Your task to perform on an android device: toggle javascript in the chrome app Image 0: 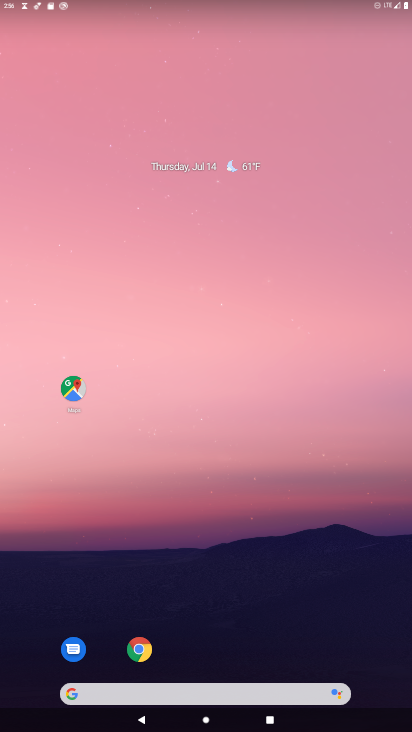
Step 0: drag from (208, 634) to (251, 71)
Your task to perform on an android device: toggle javascript in the chrome app Image 1: 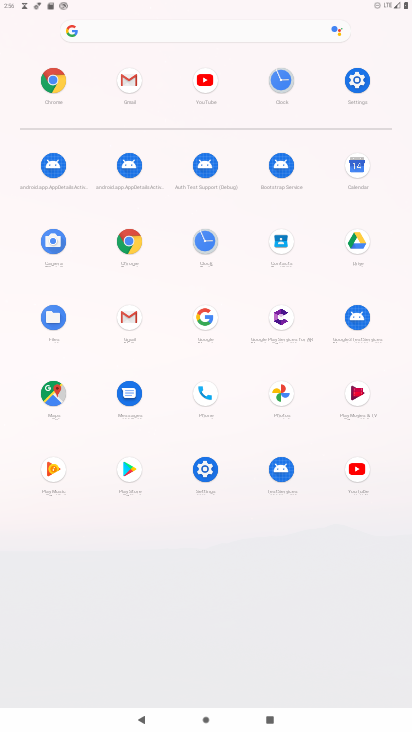
Step 1: click (137, 242)
Your task to perform on an android device: toggle javascript in the chrome app Image 2: 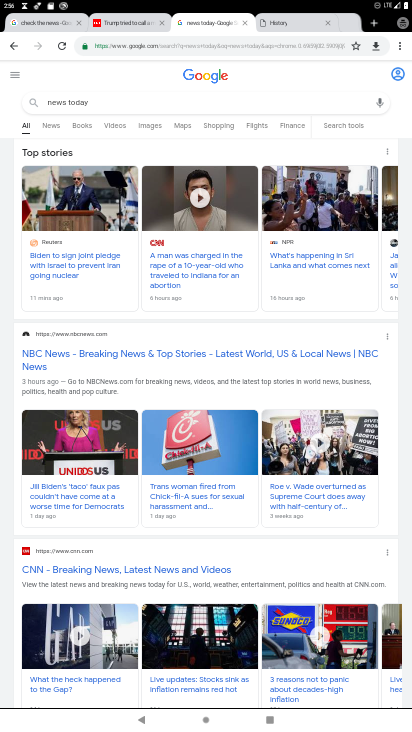
Step 2: click (403, 41)
Your task to perform on an android device: toggle javascript in the chrome app Image 3: 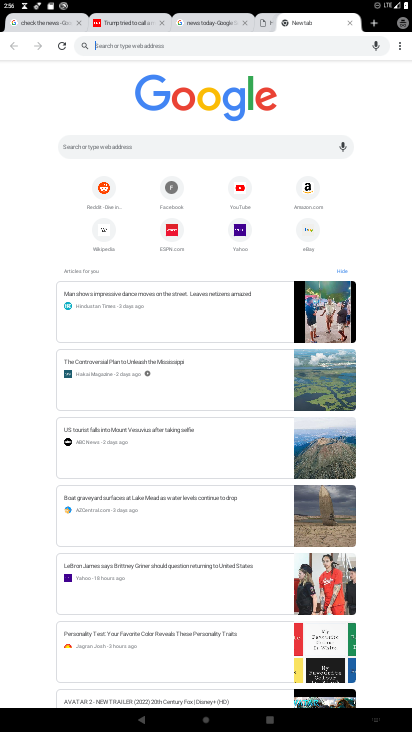
Step 3: drag from (397, 43) to (329, 214)
Your task to perform on an android device: toggle javascript in the chrome app Image 4: 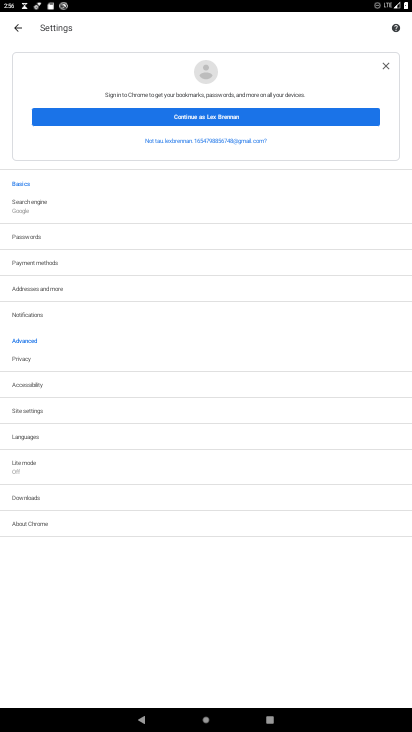
Step 4: click (40, 409)
Your task to perform on an android device: toggle javascript in the chrome app Image 5: 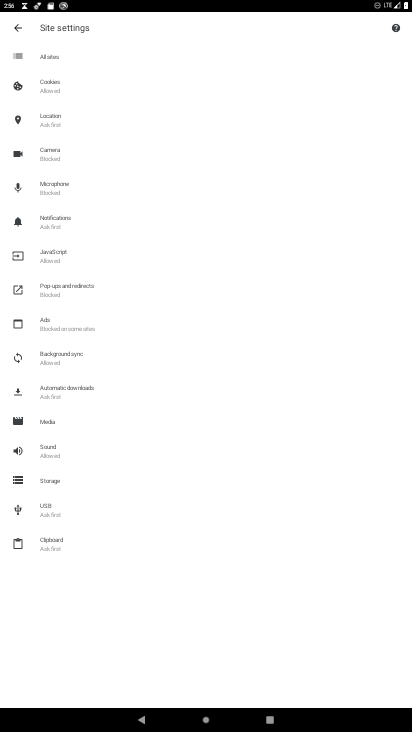
Step 5: click (70, 256)
Your task to perform on an android device: toggle javascript in the chrome app Image 6: 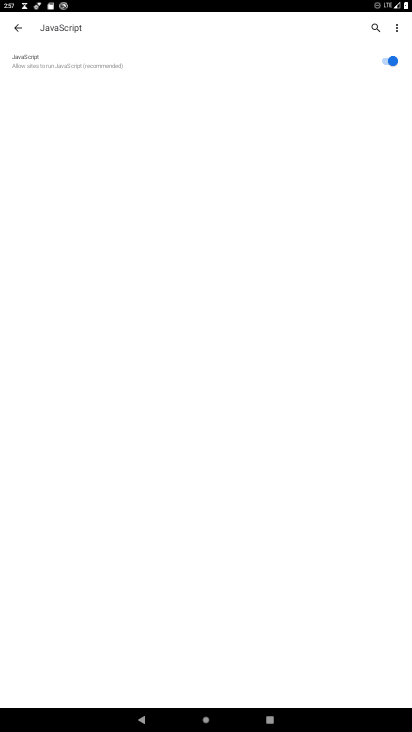
Step 6: task complete